Your task to perform on an android device: change the clock display to digital Image 0: 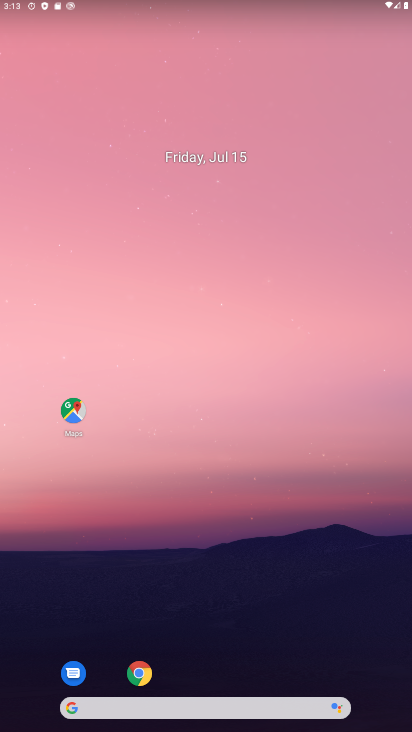
Step 0: drag from (340, 356) to (396, 211)
Your task to perform on an android device: change the clock display to digital Image 1: 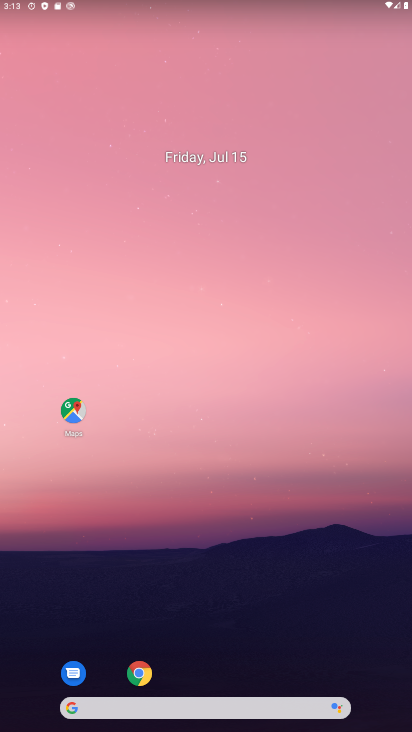
Step 1: drag from (252, 667) to (307, 210)
Your task to perform on an android device: change the clock display to digital Image 2: 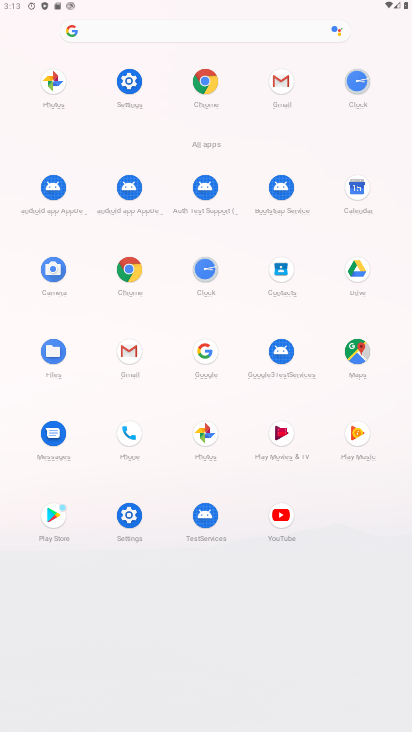
Step 2: click (206, 280)
Your task to perform on an android device: change the clock display to digital Image 3: 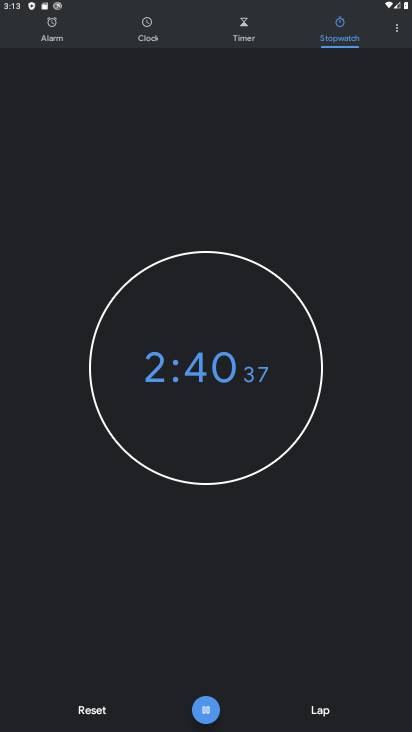
Step 3: click (396, 33)
Your task to perform on an android device: change the clock display to digital Image 4: 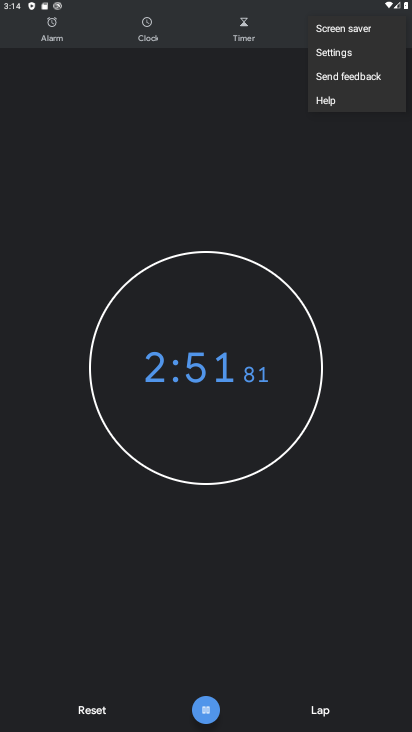
Step 4: click (368, 46)
Your task to perform on an android device: change the clock display to digital Image 5: 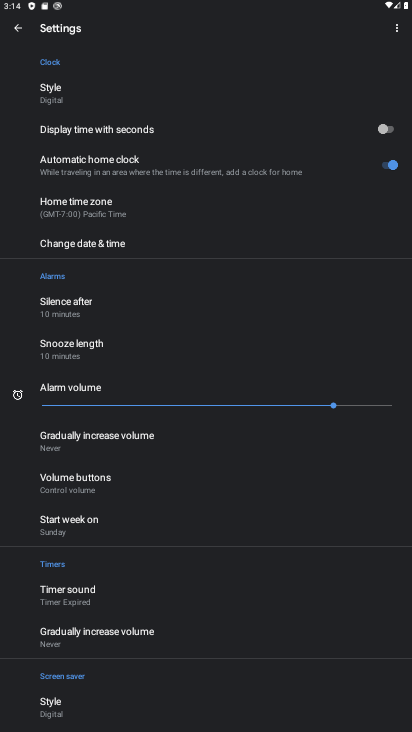
Step 5: click (161, 105)
Your task to perform on an android device: change the clock display to digital Image 6: 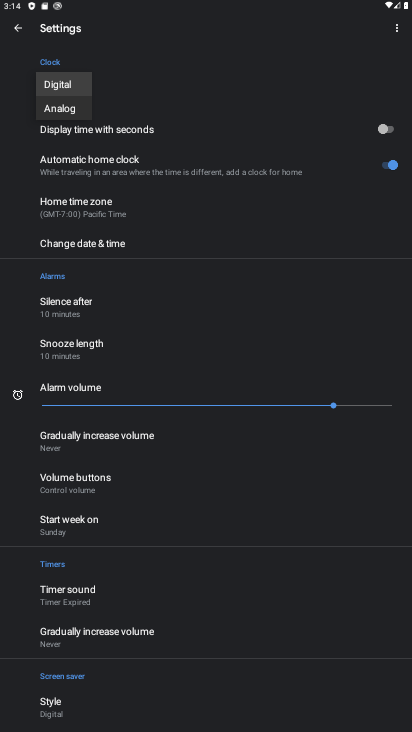
Step 6: task complete